Your task to perform on an android device: check google app version Image 0: 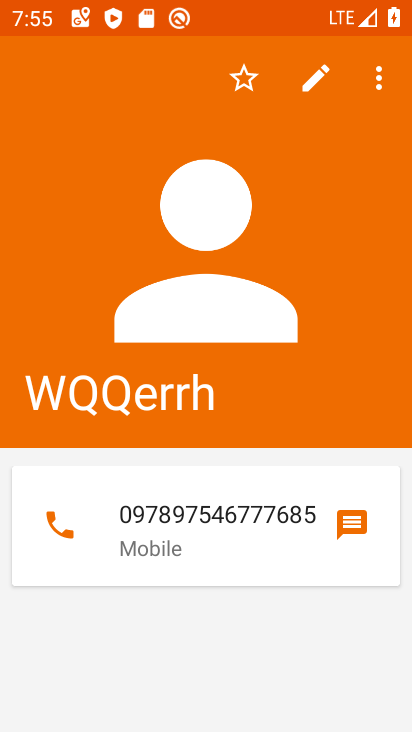
Step 0: press home button
Your task to perform on an android device: check google app version Image 1: 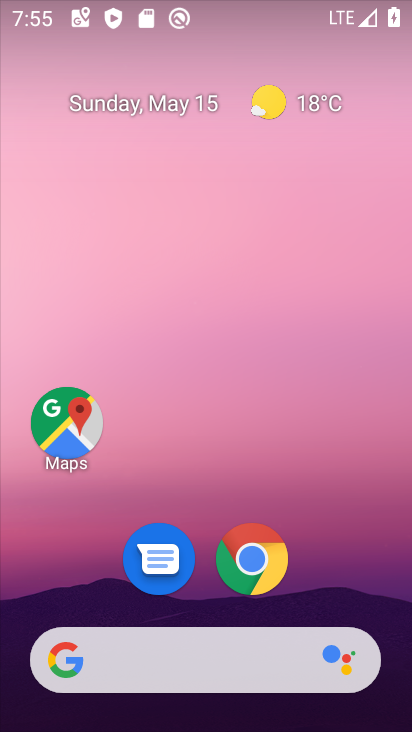
Step 1: click (128, 658)
Your task to perform on an android device: check google app version Image 2: 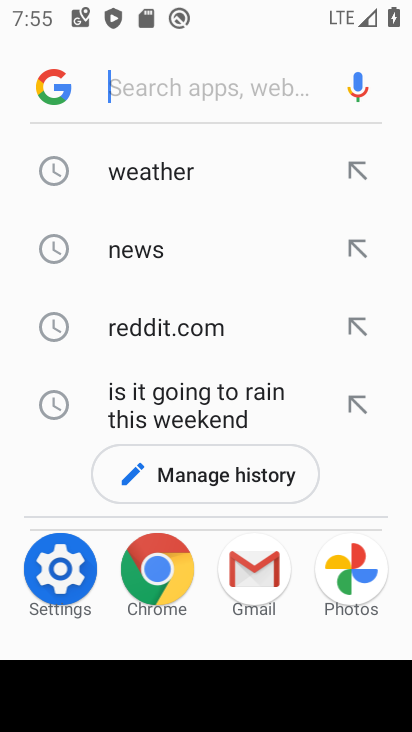
Step 2: click (47, 85)
Your task to perform on an android device: check google app version Image 3: 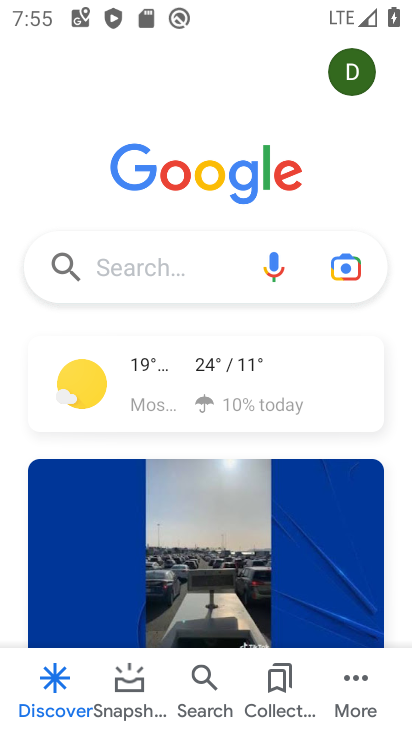
Step 3: click (354, 677)
Your task to perform on an android device: check google app version Image 4: 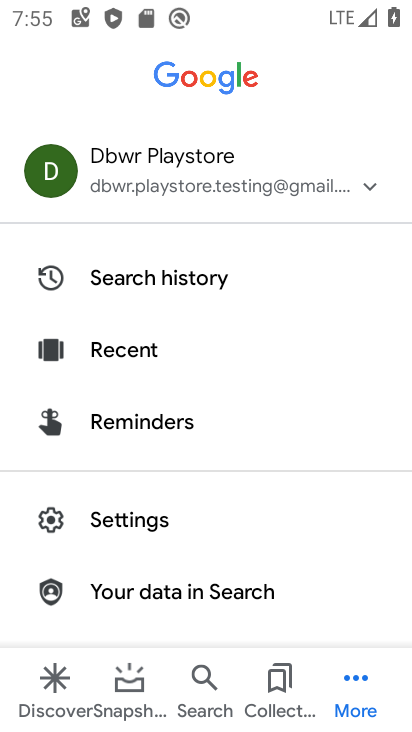
Step 4: click (147, 516)
Your task to perform on an android device: check google app version Image 5: 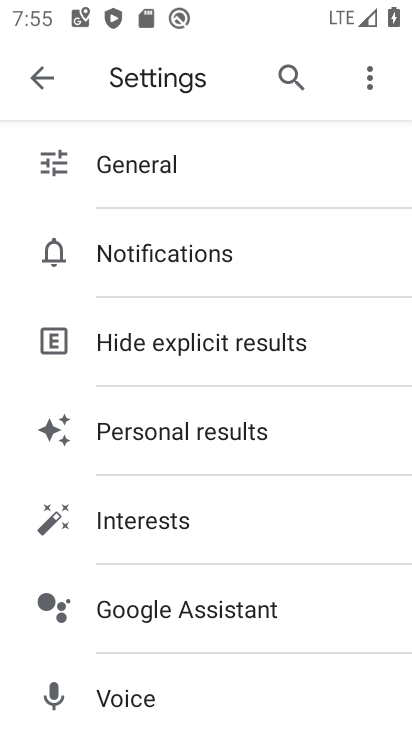
Step 5: drag from (231, 629) to (214, 424)
Your task to perform on an android device: check google app version Image 6: 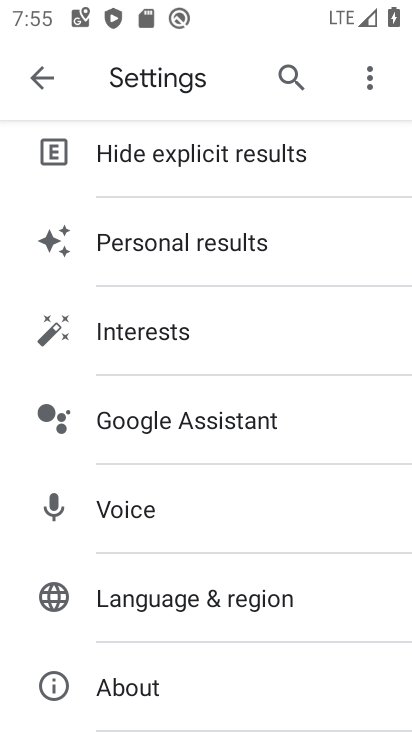
Step 6: drag from (242, 648) to (147, 325)
Your task to perform on an android device: check google app version Image 7: 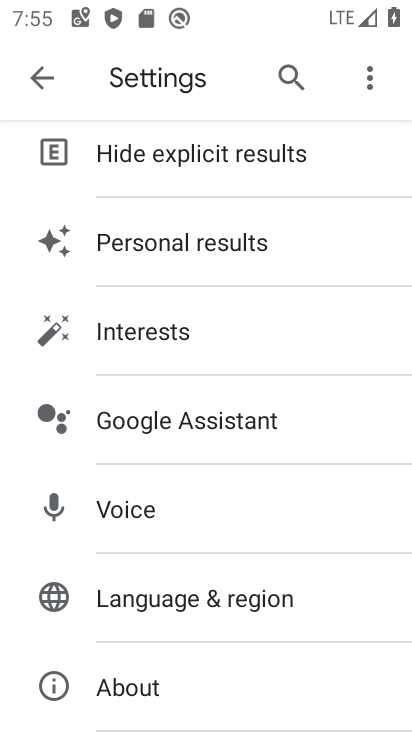
Step 7: click (138, 693)
Your task to perform on an android device: check google app version Image 8: 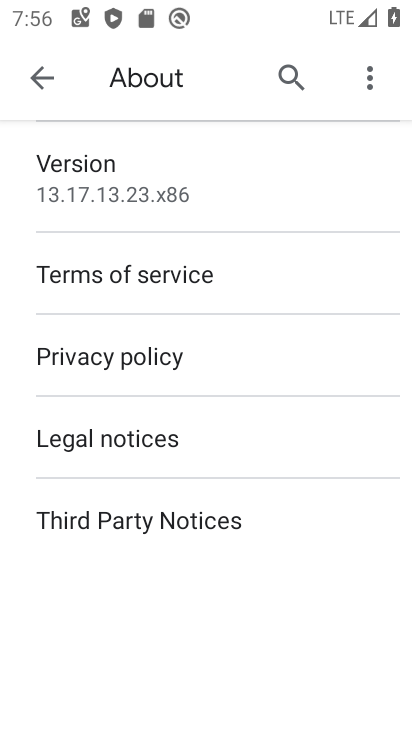
Step 8: task complete